Your task to perform on an android device: clear history in the chrome app Image 0: 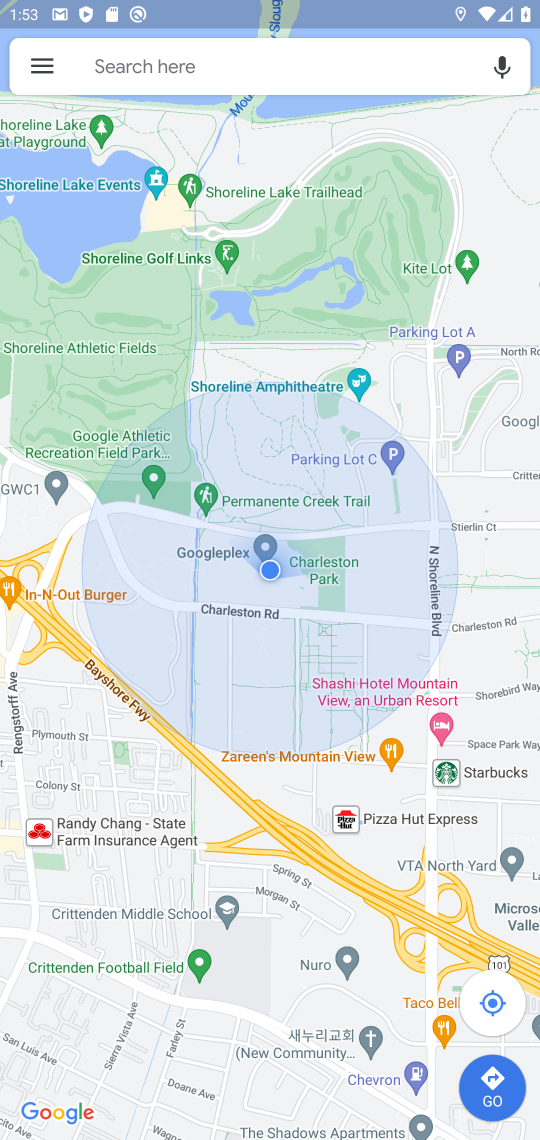
Step 0: press home button
Your task to perform on an android device: clear history in the chrome app Image 1: 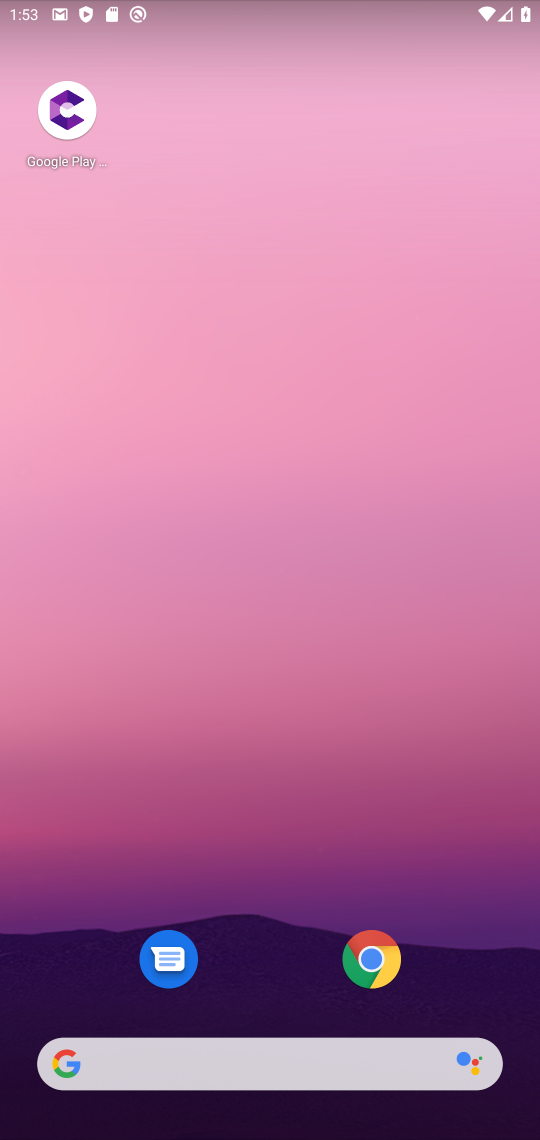
Step 1: click (385, 961)
Your task to perform on an android device: clear history in the chrome app Image 2: 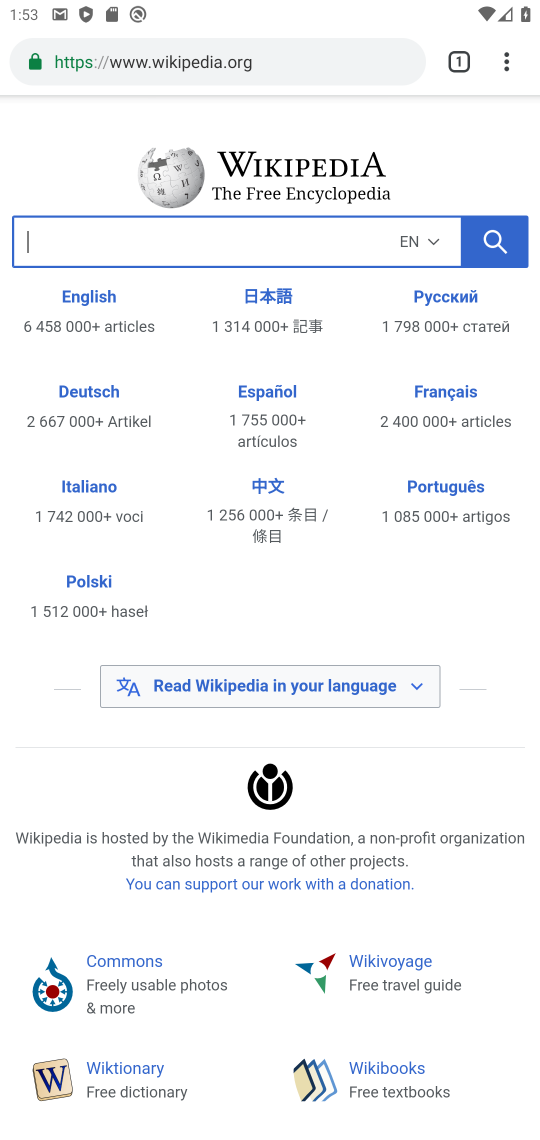
Step 2: click (509, 59)
Your task to perform on an android device: clear history in the chrome app Image 3: 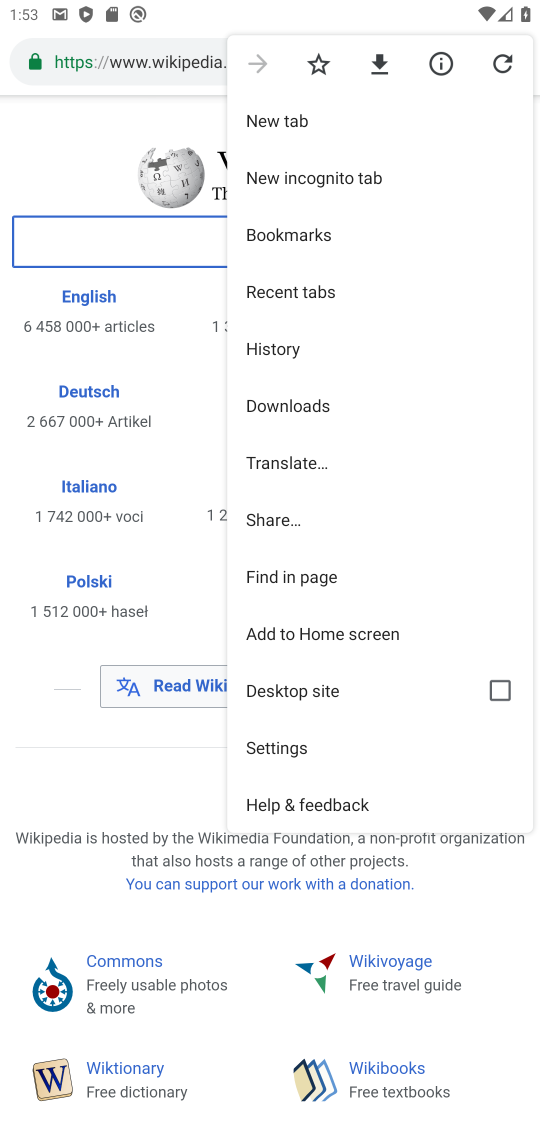
Step 3: click (301, 353)
Your task to perform on an android device: clear history in the chrome app Image 4: 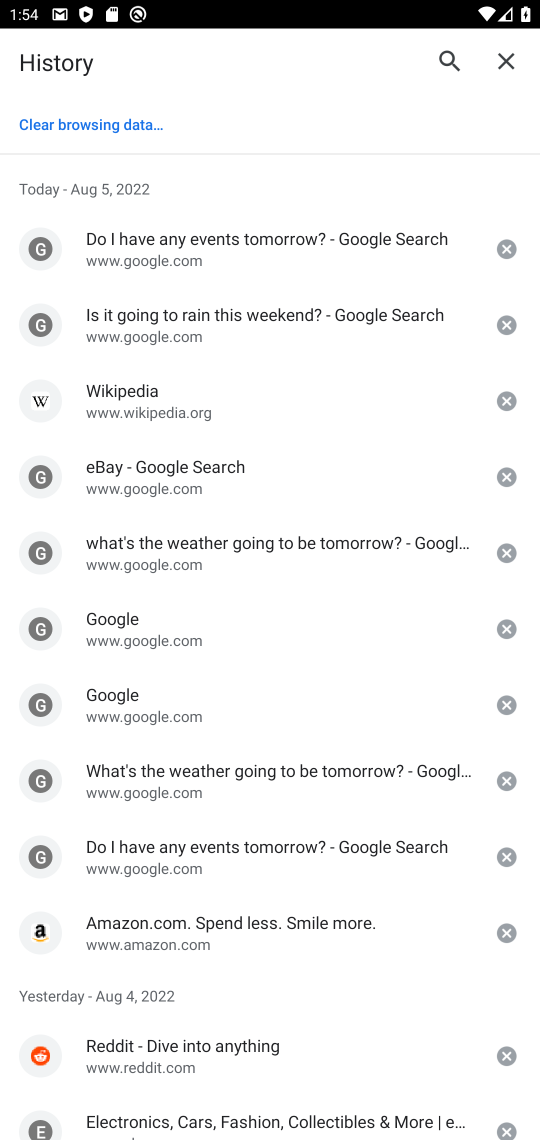
Step 4: click (74, 115)
Your task to perform on an android device: clear history in the chrome app Image 5: 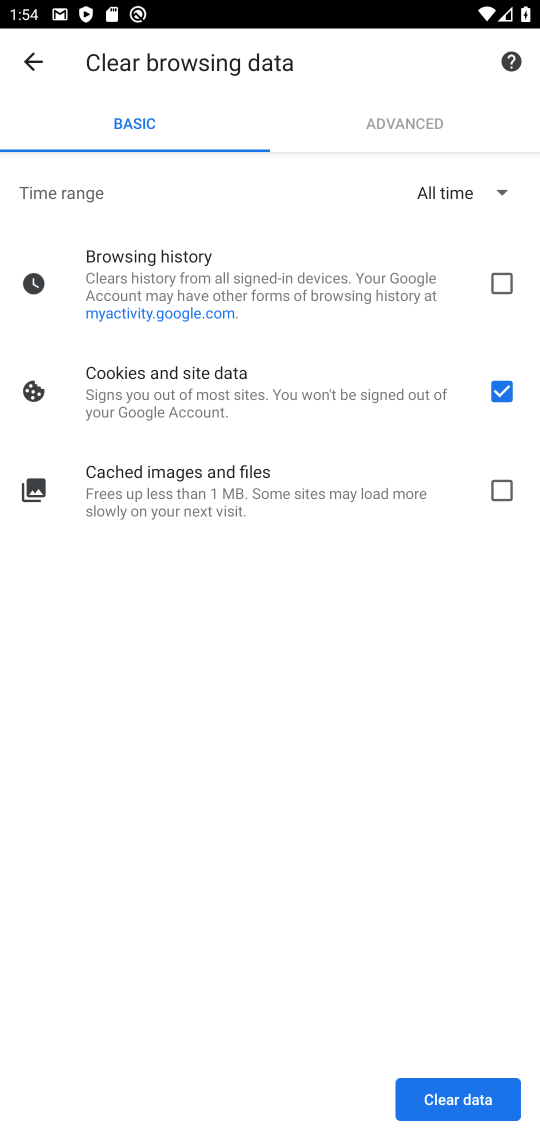
Step 5: click (483, 1113)
Your task to perform on an android device: clear history in the chrome app Image 6: 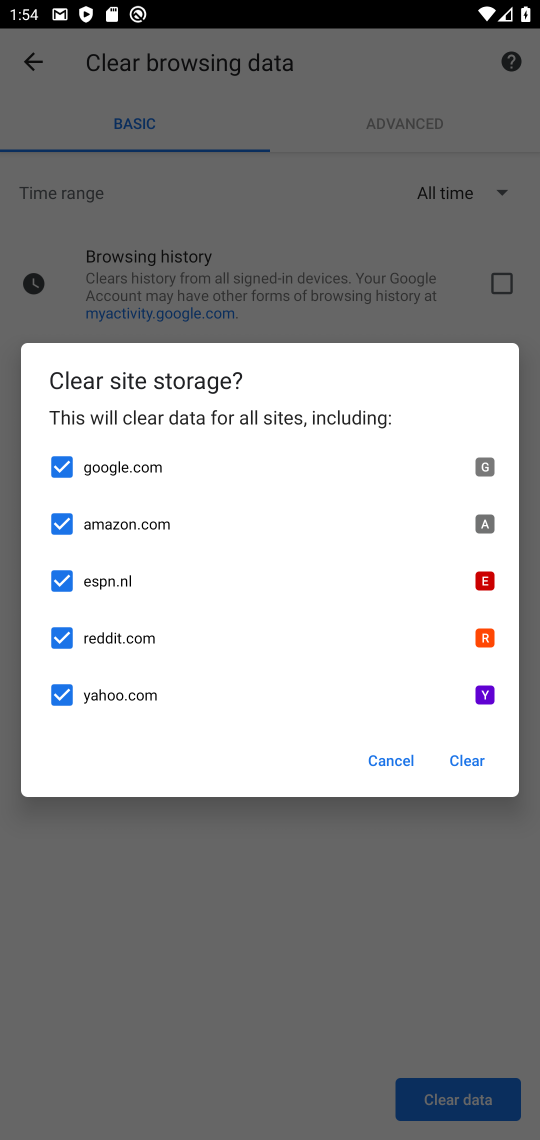
Step 6: click (470, 750)
Your task to perform on an android device: clear history in the chrome app Image 7: 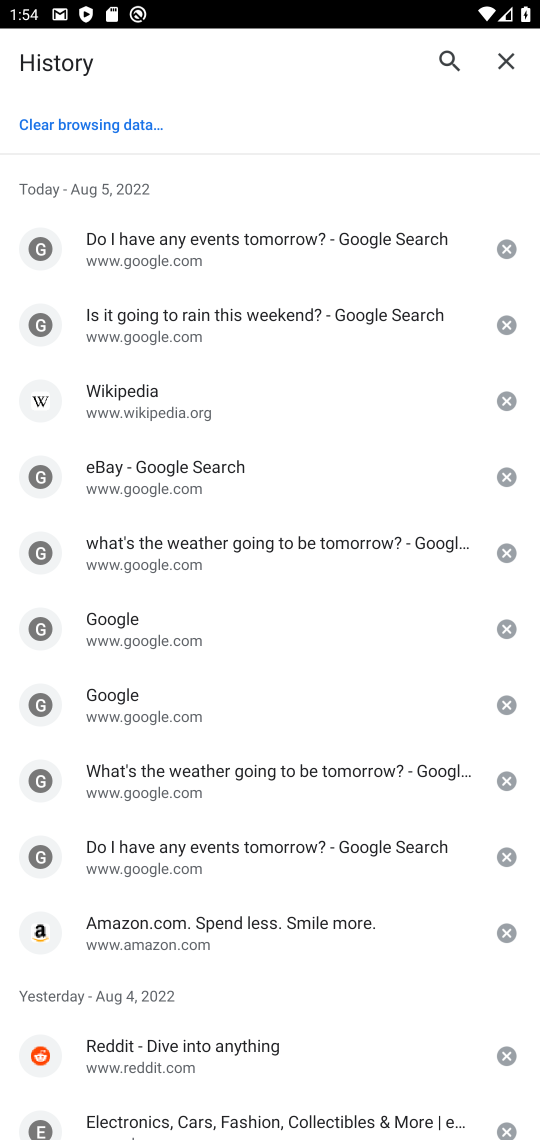
Step 7: click (84, 122)
Your task to perform on an android device: clear history in the chrome app Image 8: 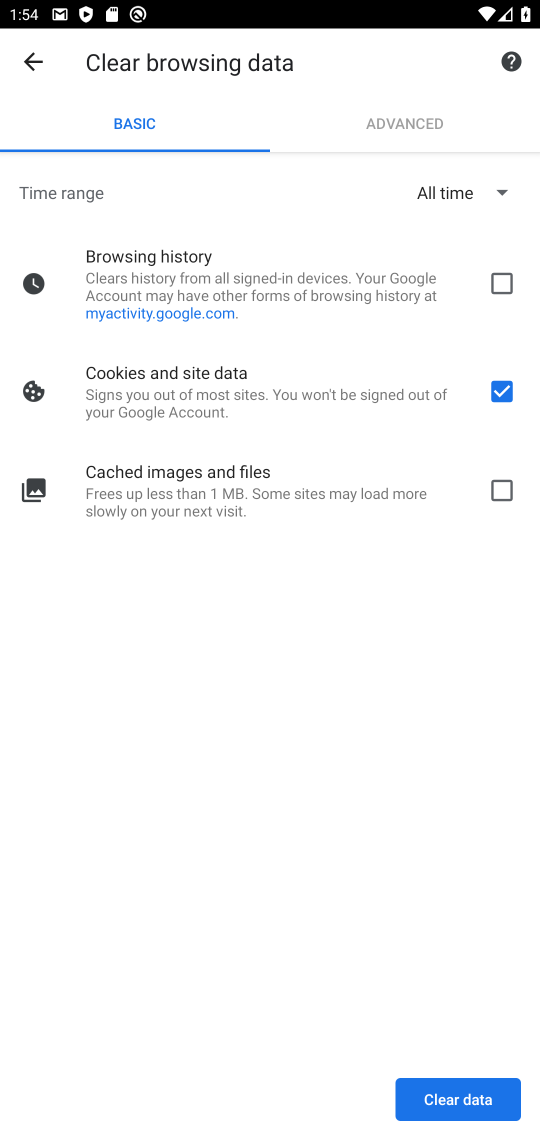
Step 8: click (484, 1107)
Your task to perform on an android device: clear history in the chrome app Image 9: 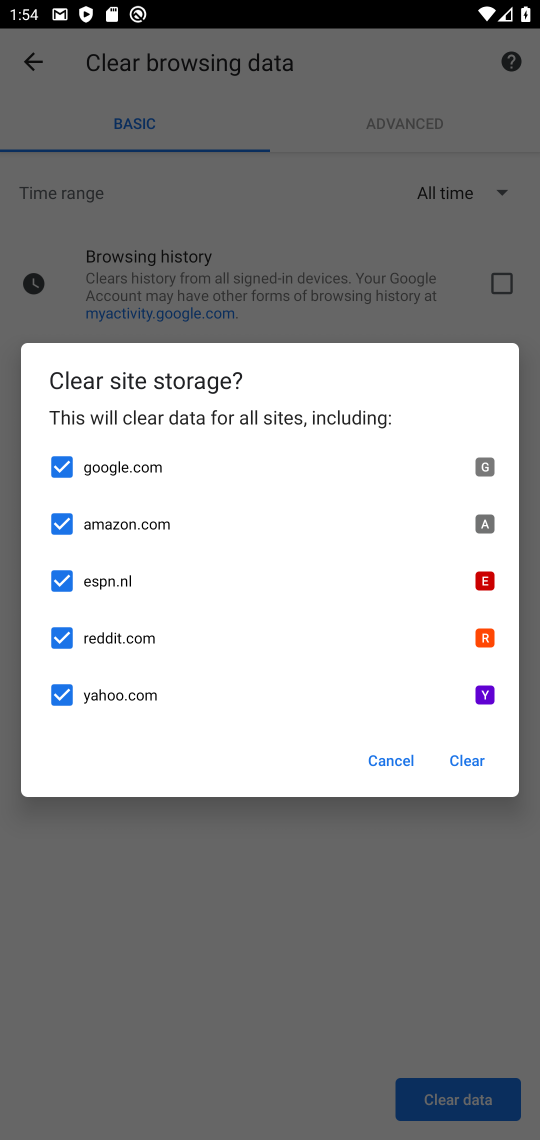
Step 9: click (469, 757)
Your task to perform on an android device: clear history in the chrome app Image 10: 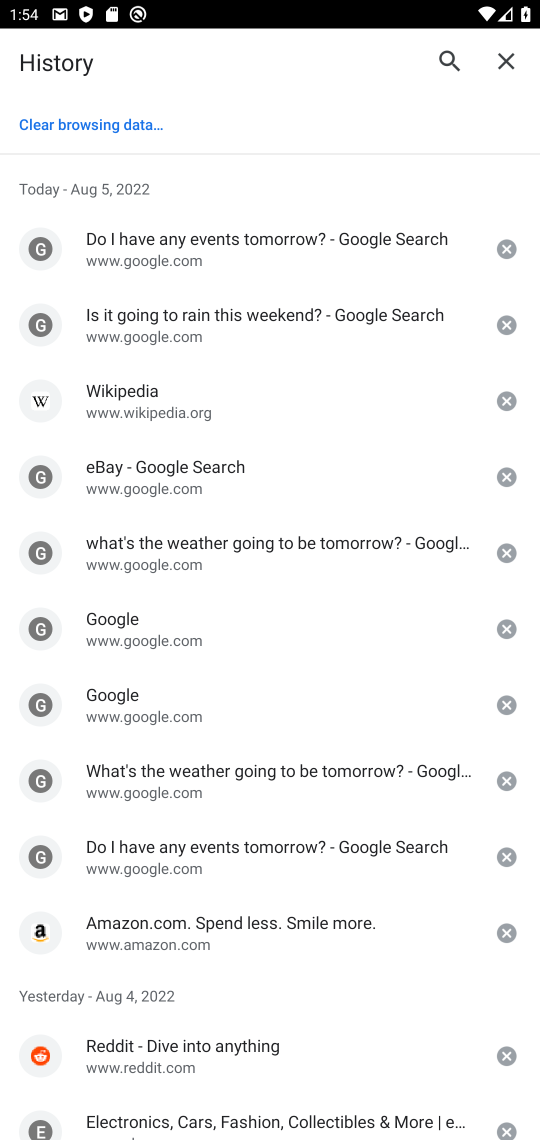
Step 10: task complete